Your task to perform on an android device: set an alarm Image 0: 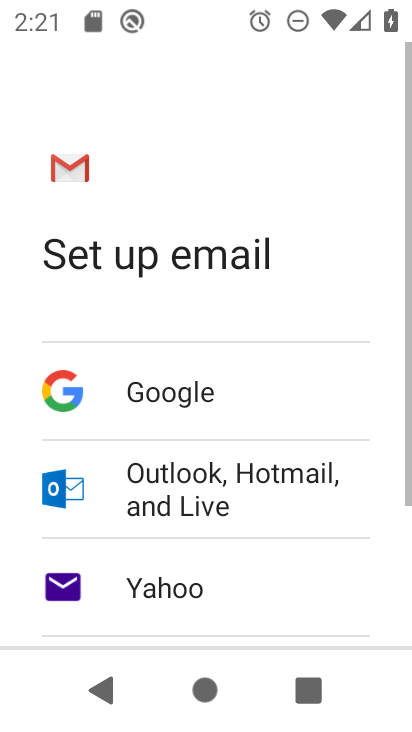
Step 0: press home button
Your task to perform on an android device: set an alarm Image 1: 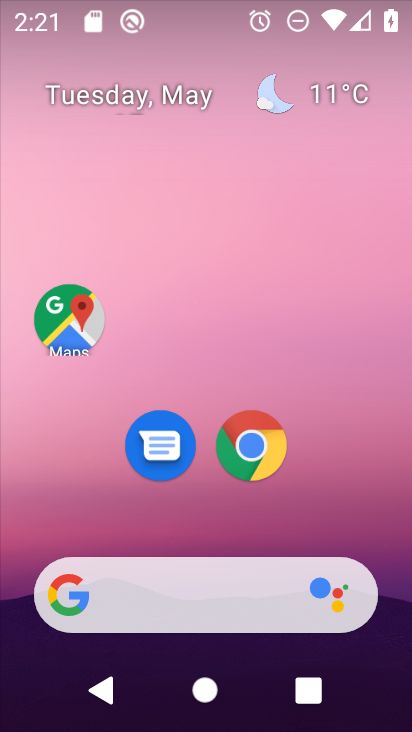
Step 1: drag from (368, 505) to (288, 244)
Your task to perform on an android device: set an alarm Image 2: 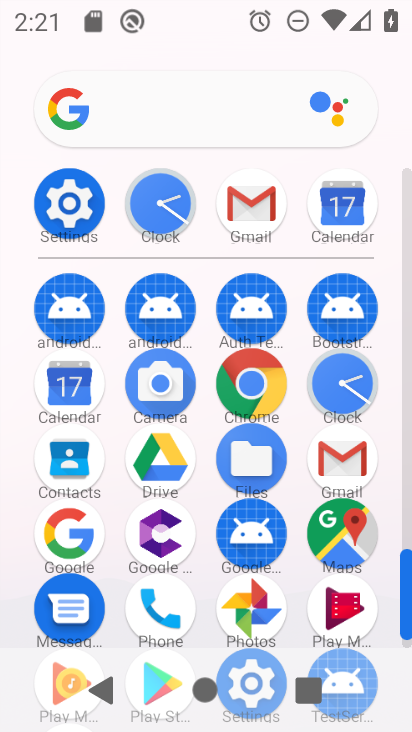
Step 2: click (173, 188)
Your task to perform on an android device: set an alarm Image 3: 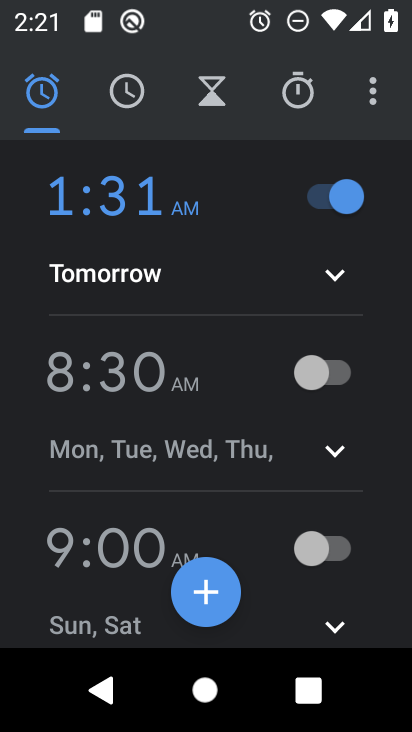
Step 3: click (334, 365)
Your task to perform on an android device: set an alarm Image 4: 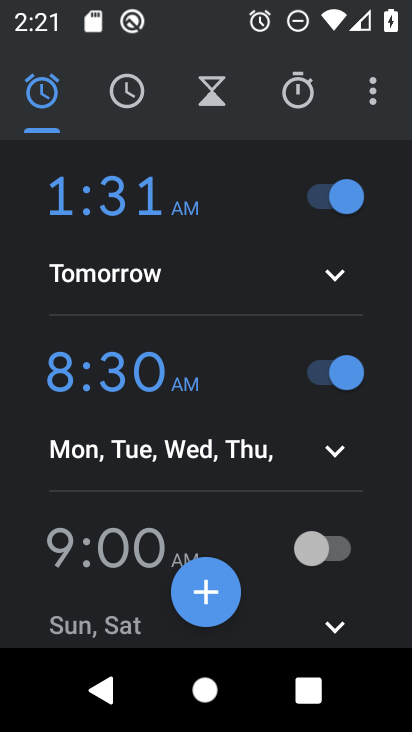
Step 4: task complete